Your task to perform on an android device: see tabs open on other devices in the chrome app Image 0: 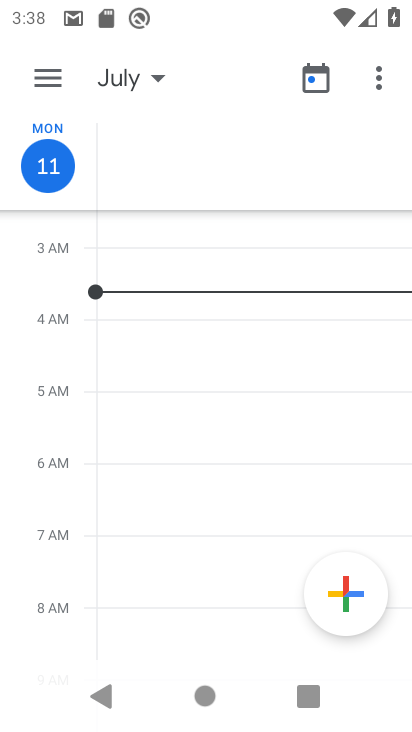
Step 0: press home button
Your task to perform on an android device: see tabs open on other devices in the chrome app Image 1: 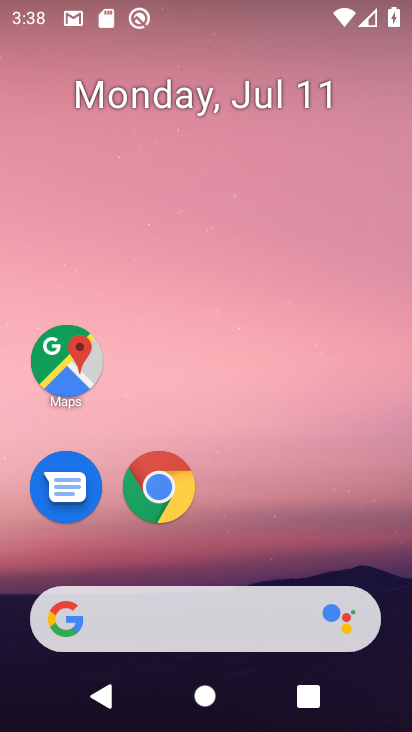
Step 1: click (160, 508)
Your task to perform on an android device: see tabs open on other devices in the chrome app Image 2: 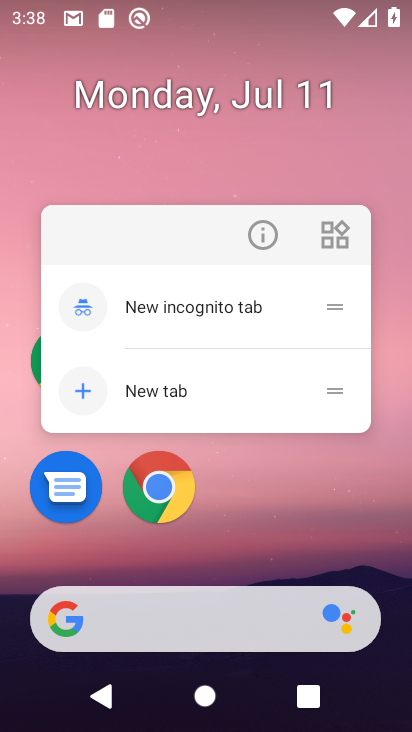
Step 2: click (138, 496)
Your task to perform on an android device: see tabs open on other devices in the chrome app Image 3: 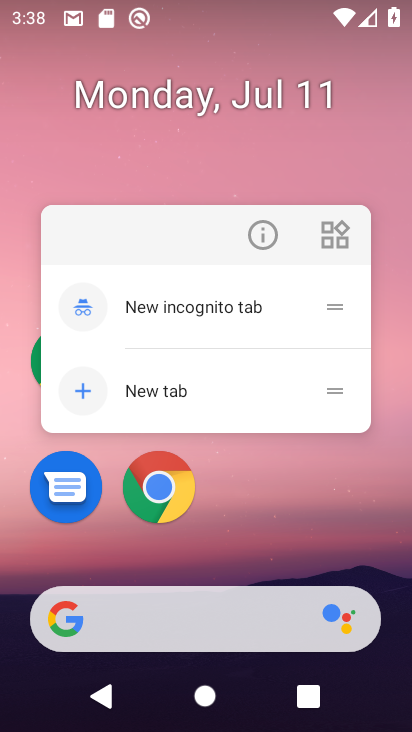
Step 3: click (159, 493)
Your task to perform on an android device: see tabs open on other devices in the chrome app Image 4: 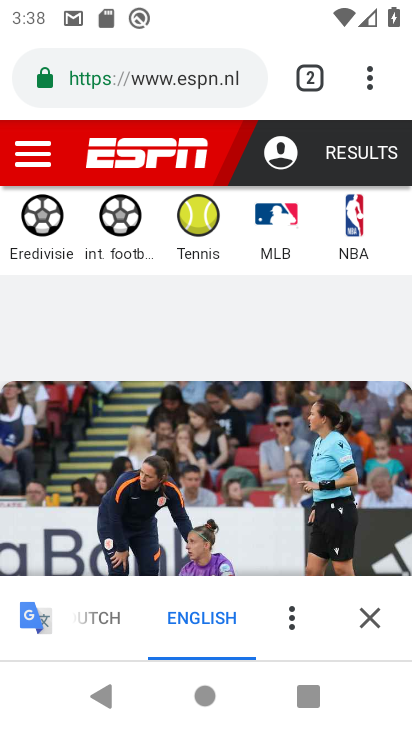
Step 4: task complete